Your task to perform on an android device: change notification settings in the gmail app Image 0: 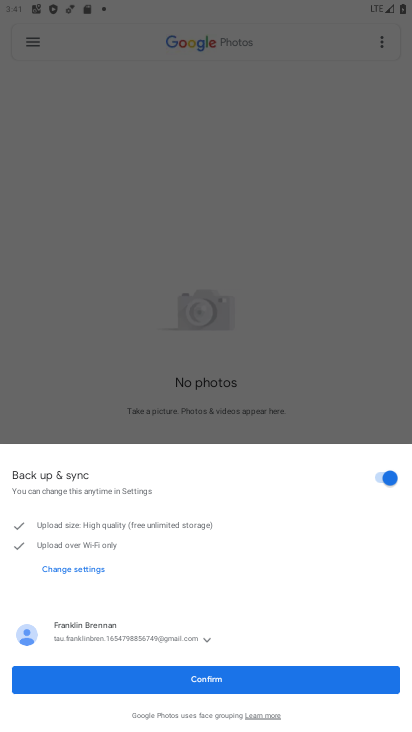
Step 0: press home button
Your task to perform on an android device: change notification settings in the gmail app Image 1: 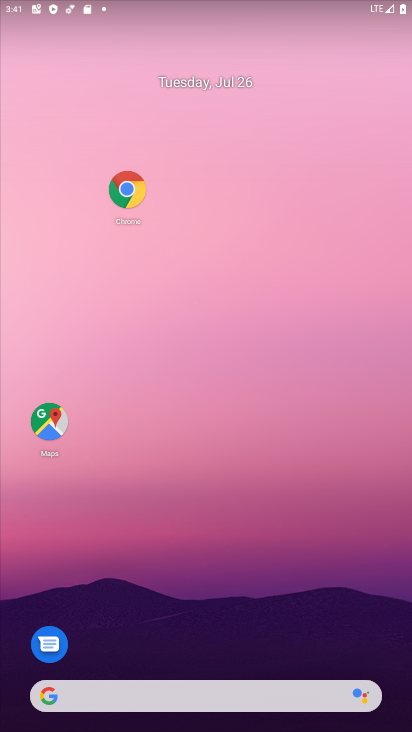
Step 1: drag from (145, 678) to (156, 228)
Your task to perform on an android device: change notification settings in the gmail app Image 2: 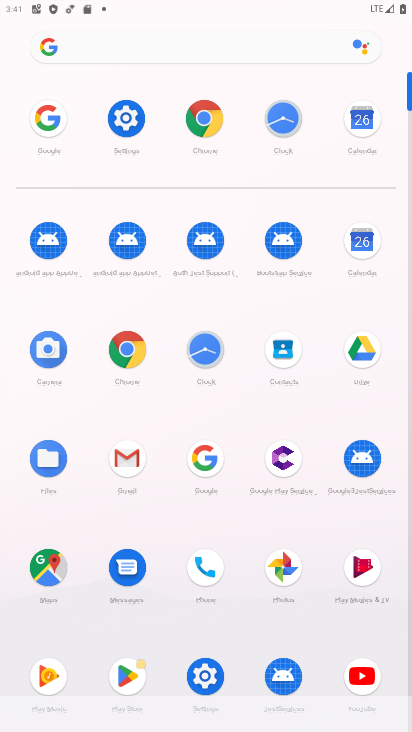
Step 2: click (139, 458)
Your task to perform on an android device: change notification settings in the gmail app Image 3: 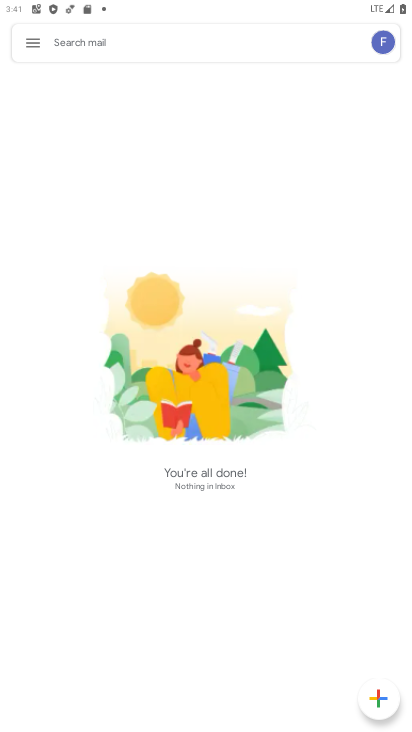
Step 3: click (37, 48)
Your task to perform on an android device: change notification settings in the gmail app Image 4: 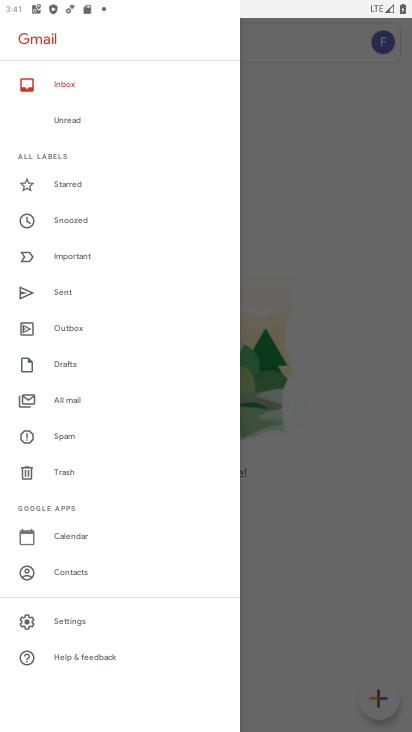
Step 4: click (80, 619)
Your task to perform on an android device: change notification settings in the gmail app Image 5: 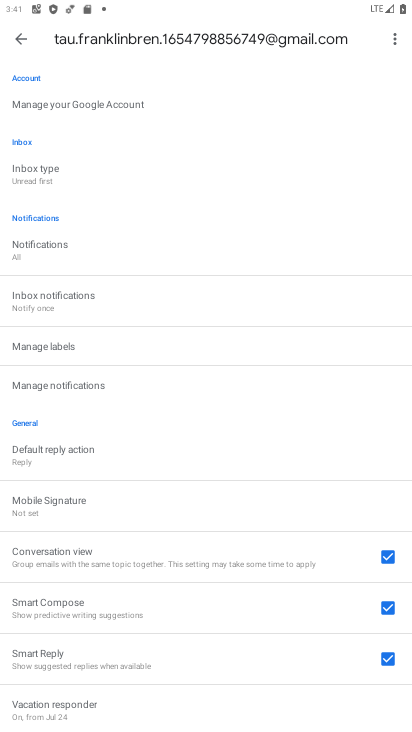
Step 5: click (42, 389)
Your task to perform on an android device: change notification settings in the gmail app Image 6: 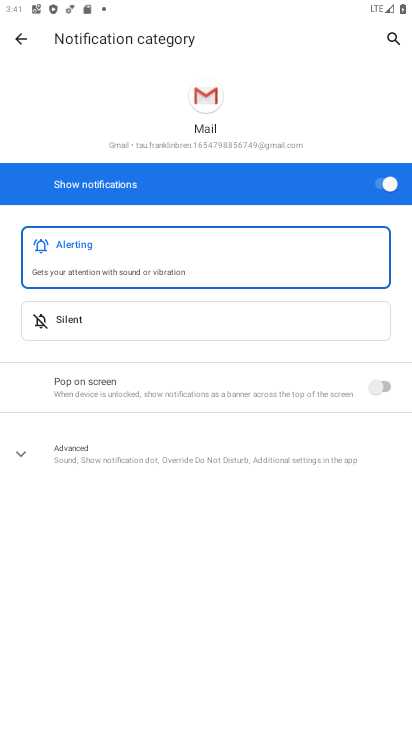
Step 6: click (388, 191)
Your task to perform on an android device: change notification settings in the gmail app Image 7: 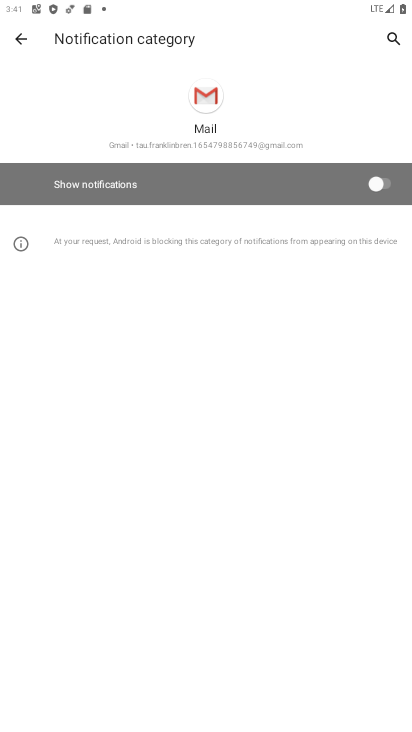
Step 7: task complete